Your task to perform on an android device: Search for a nightstand on IKEA. Image 0: 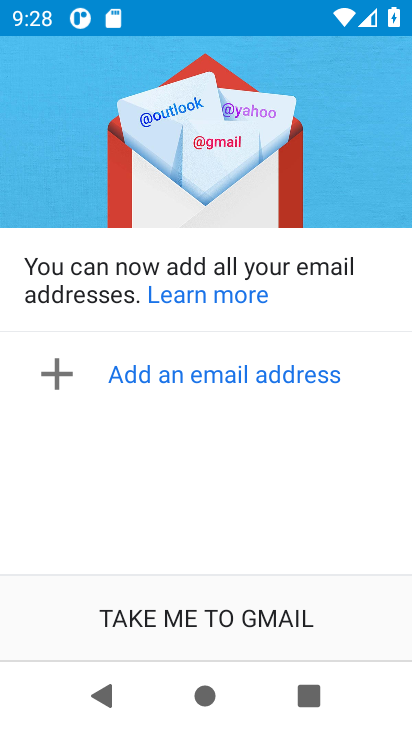
Step 0: task complete